Your task to perform on an android device: turn off translation in the chrome app Image 0: 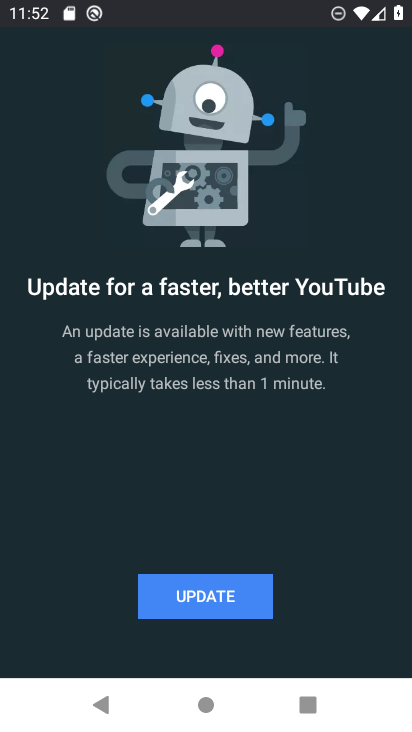
Step 0: press home button
Your task to perform on an android device: turn off translation in the chrome app Image 1: 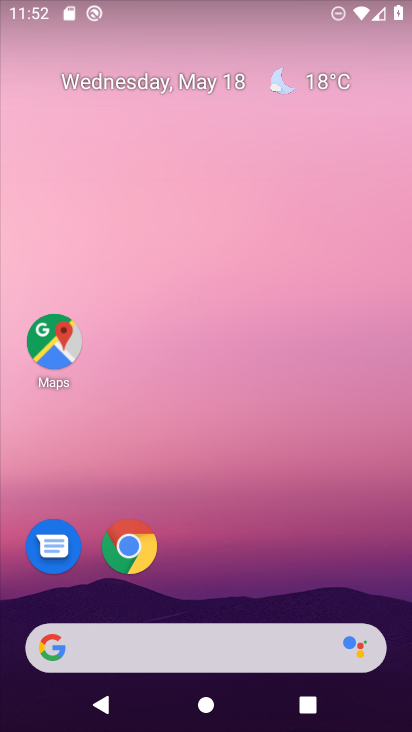
Step 1: click (133, 543)
Your task to perform on an android device: turn off translation in the chrome app Image 2: 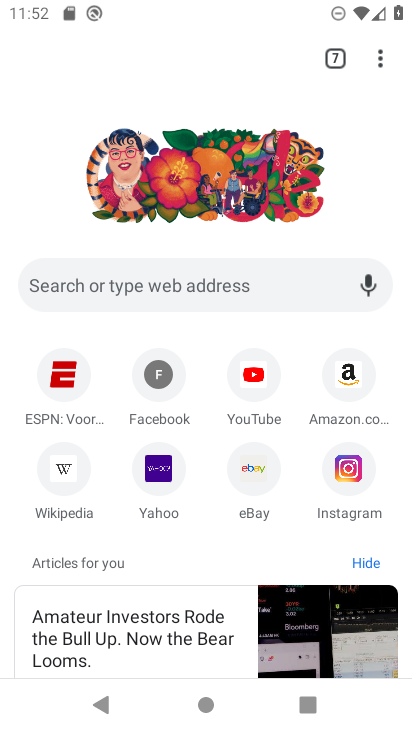
Step 2: click (379, 64)
Your task to perform on an android device: turn off translation in the chrome app Image 3: 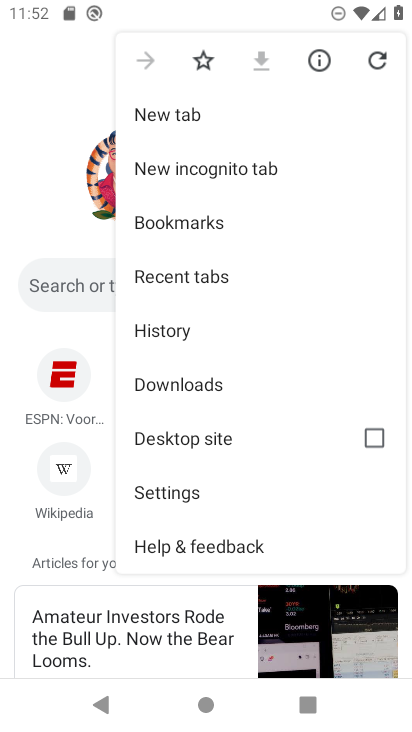
Step 3: click (173, 491)
Your task to perform on an android device: turn off translation in the chrome app Image 4: 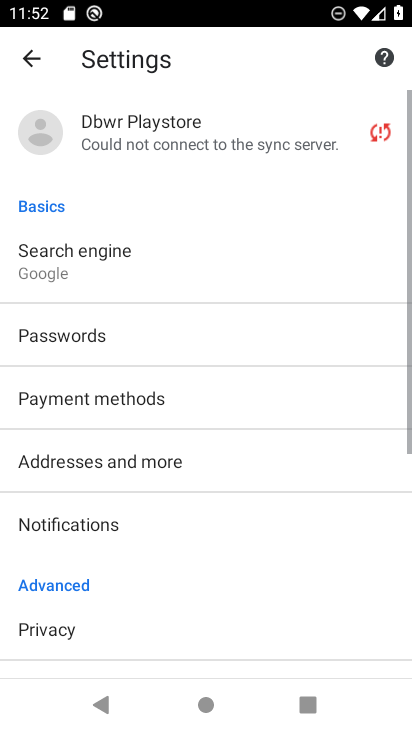
Step 4: drag from (126, 610) to (139, 287)
Your task to perform on an android device: turn off translation in the chrome app Image 5: 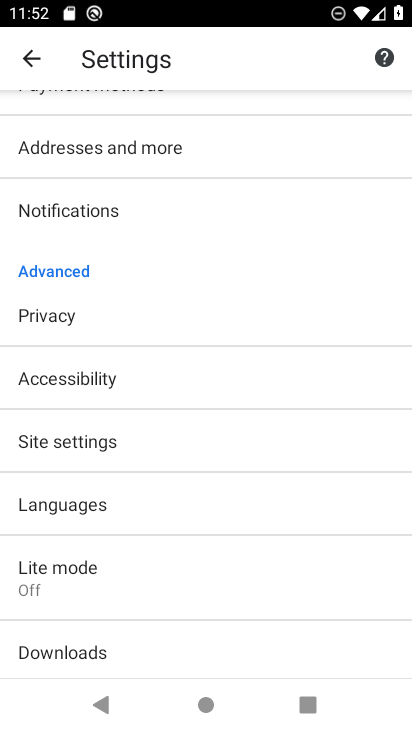
Step 5: click (79, 504)
Your task to perform on an android device: turn off translation in the chrome app Image 6: 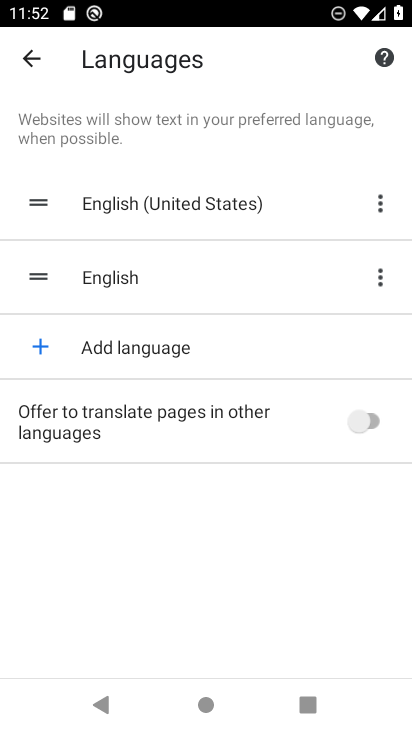
Step 6: task complete